Your task to perform on an android device: open a new tab in the chrome app Image 0: 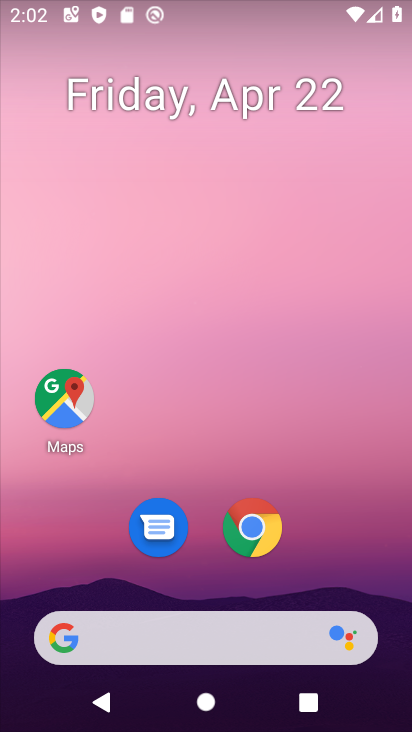
Step 0: drag from (340, 525) to (348, 88)
Your task to perform on an android device: open a new tab in the chrome app Image 1: 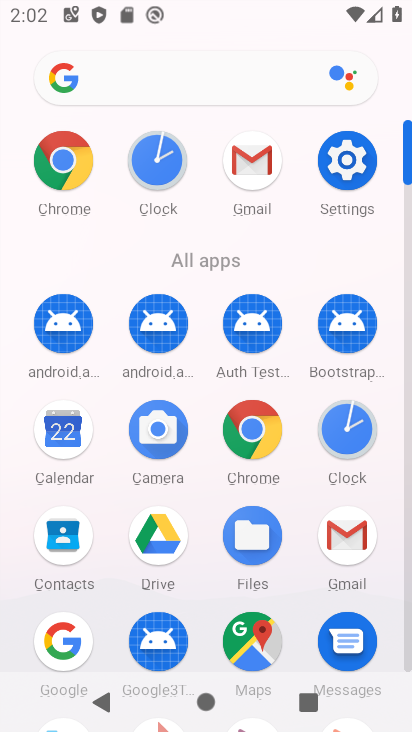
Step 1: click (265, 427)
Your task to perform on an android device: open a new tab in the chrome app Image 2: 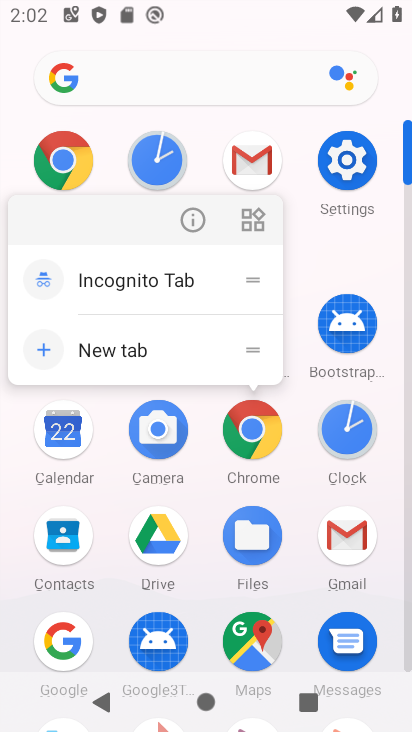
Step 2: click (259, 428)
Your task to perform on an android device: open a new tab in the chrome app Image 3: 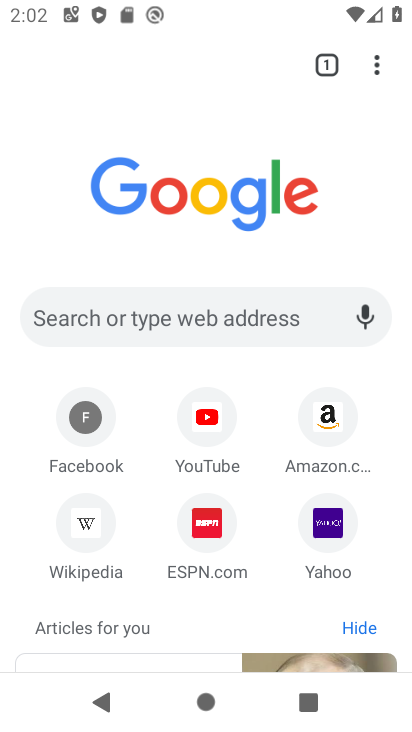
Step 3: click (380, 60)
Your task to perform on an android device: open a new tab in the chrome app Image 4: 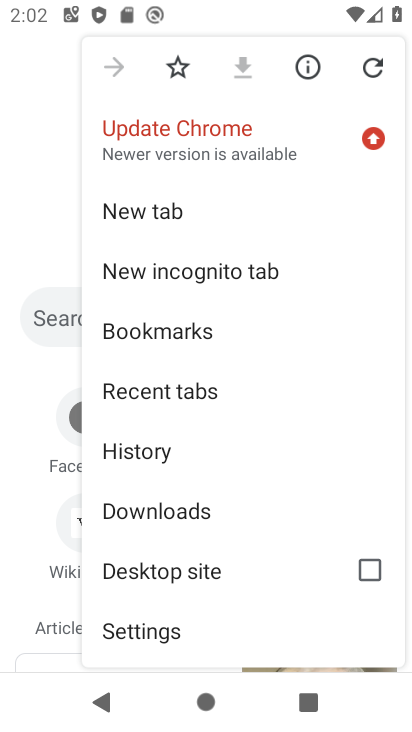
Step 4: click (151, 210)
Your task to perform on an android device: open a new tab in the chrome app Image 5: 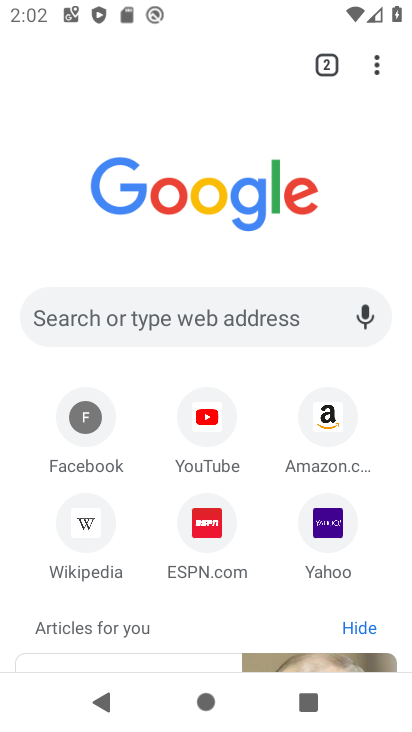
Step 5: task complete